Your task to perform on an android device: add a contact in the contacts app Image 0: 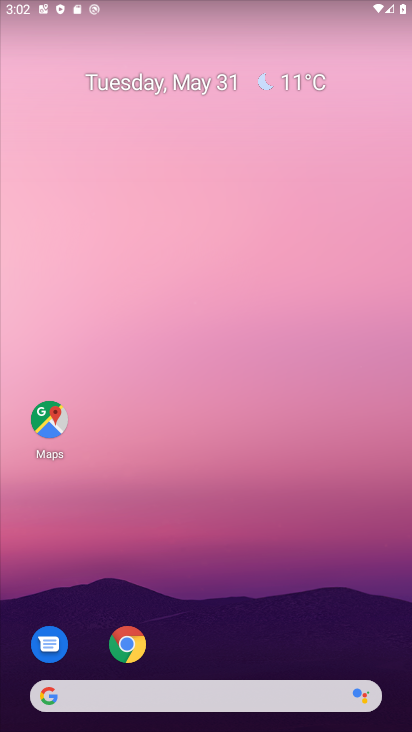
Step 0: drag from (237, 562) to (258, 114)
Your task to perform on an android device: add a contact in the contacts app Image 1: 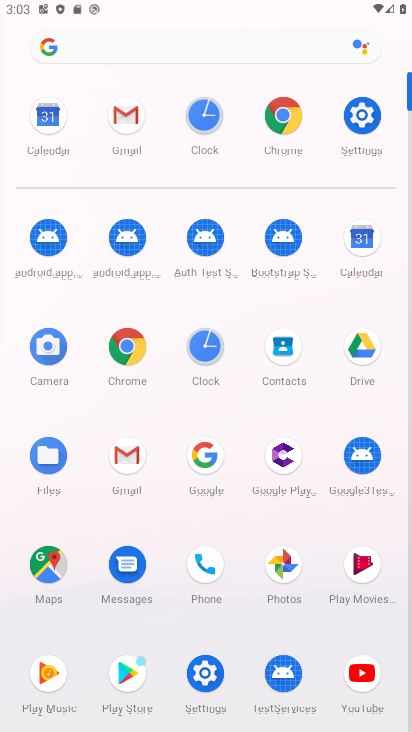
Step 1: click (296, 359)
Your task to perform on an android device: add a contact in the contacts app Image 2: 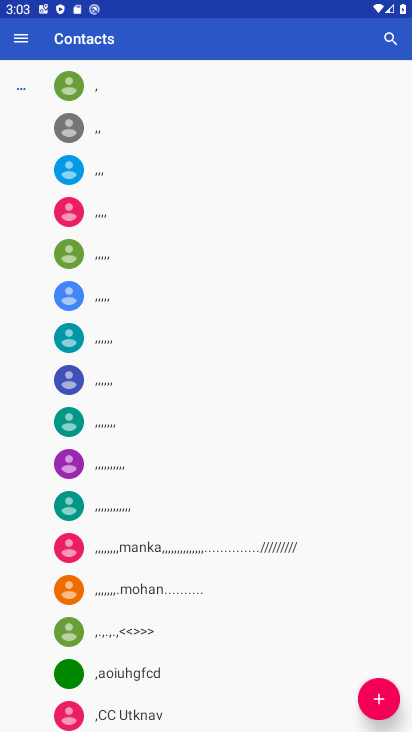
Step 2: click (372, 700)
Your task to perform on an android device: add a contact in the contacts app Image 3: 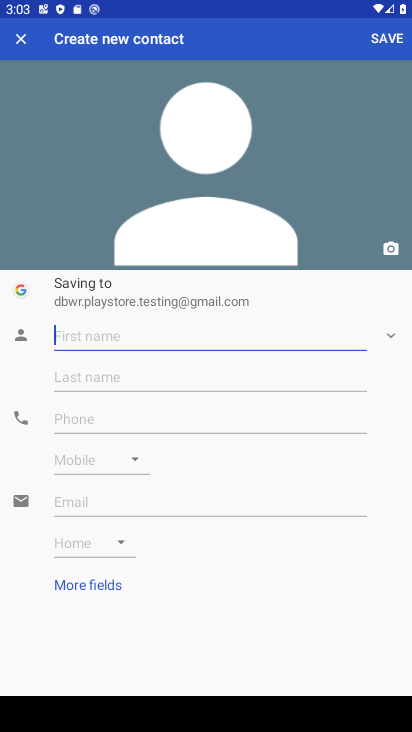
Step 3: type "jhhuj"
Your task to perform on an android device: add a contact in the contacts app Image 4: 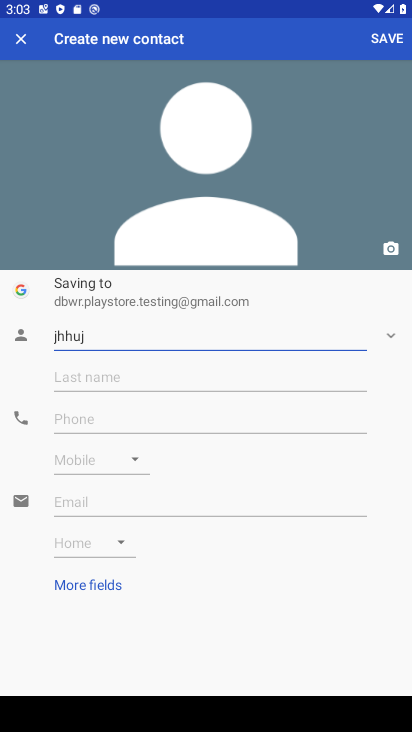
Step 4: click (59, 408)
Your task to perform on an android device: add a contact in the contacts app Image 5: 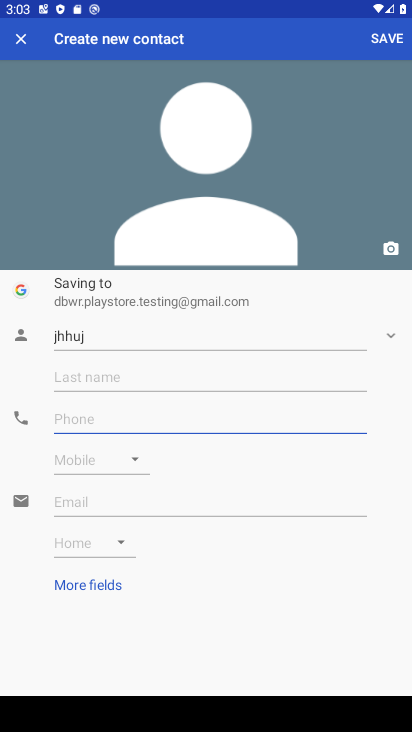
Step 5: type "9088124900"
Your task to perform on an android device: add a contact in the contacts app Image 6: 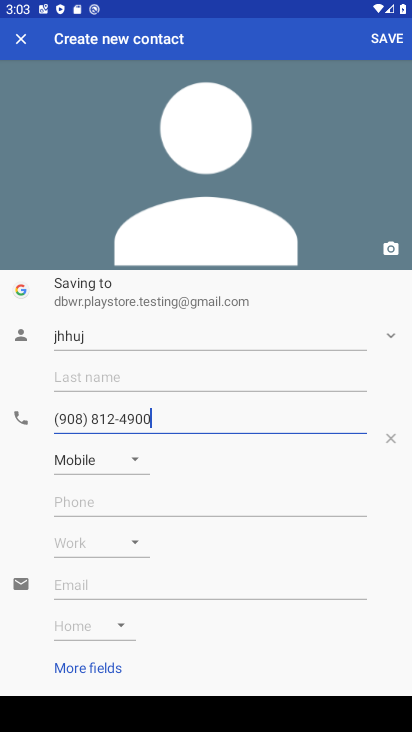
Step 6: click (384, 27)
Your task to perform on an android device: add a contact in the contacts app Image 7: 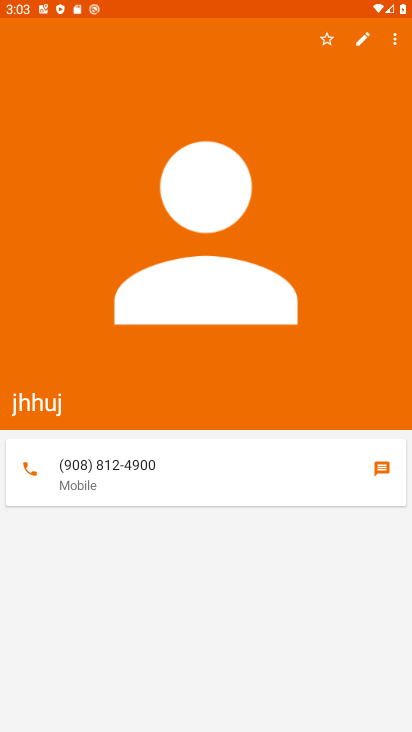
Step 7: task complete